Your task to perform on an android device: turn on location history Image 0: 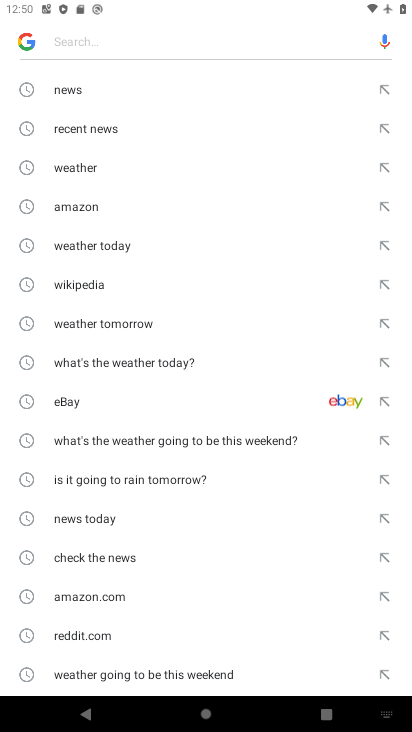
Step 0: drag from (229, 657) to (311, 292)
Your task to perform on an android device: turn on location history Image 1: 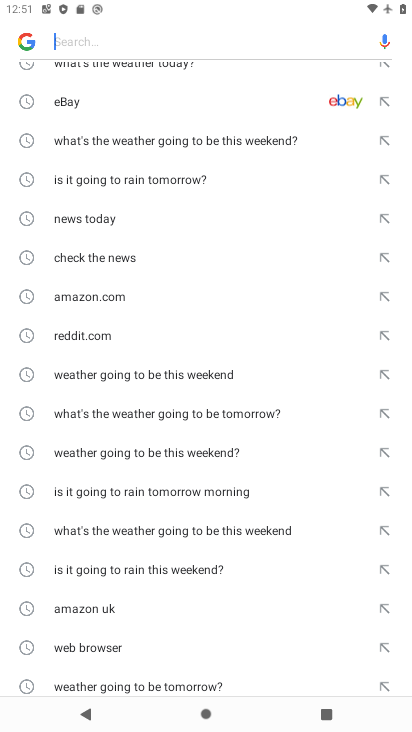
Step 1: press home button
Your task to perform on an android device: turn on location history Image 2: 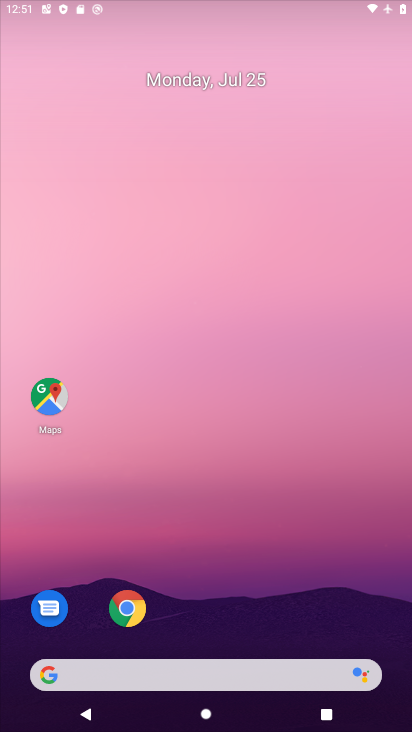
Step 2: click (261, 137)
Your task to perform on an android device: turn on location history Image 3: 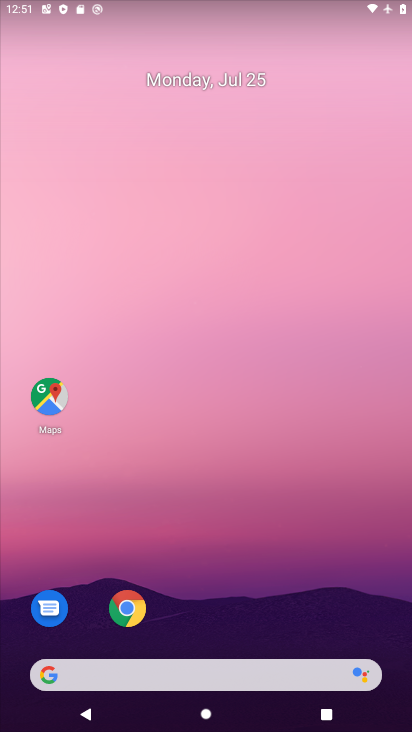
Step 3: drag from (165, 578) to (258, 109)
Your task to perform on an android device: turn on location history Image 4: 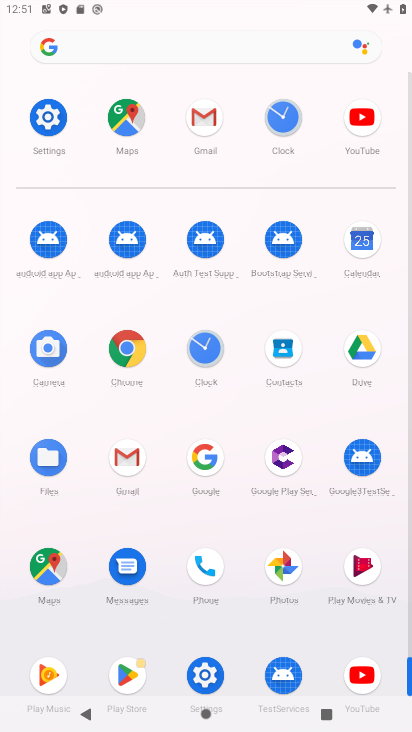
Step 4: click (54, 135)
Your task to perform on an android device: turn on location history Image 5: 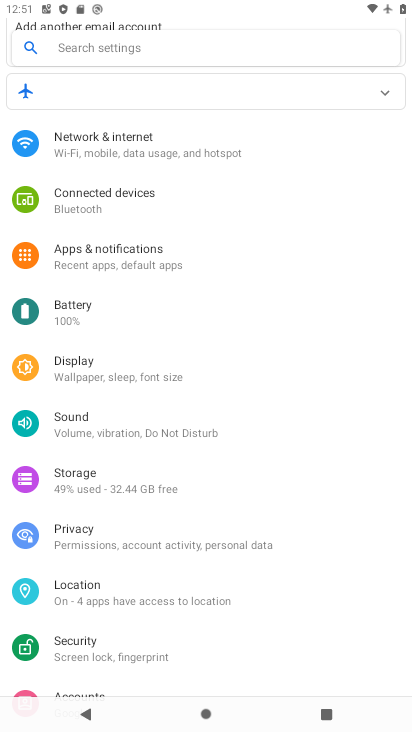
Step 5: click (99, 583)
Your task to perform on an android device: turn on location history Image 6: 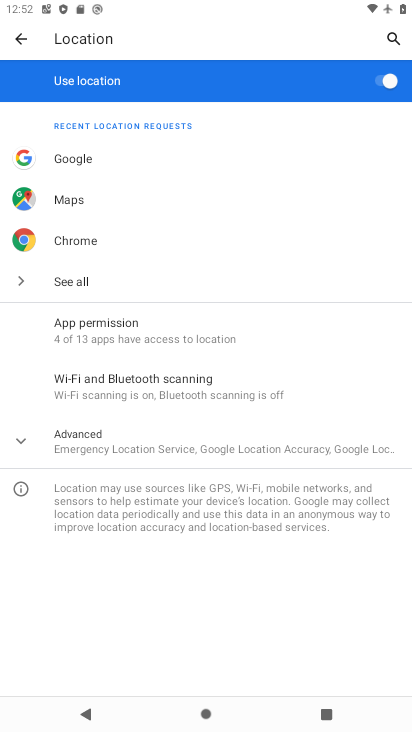
Step 6: click (139, 448)
Your task to perform on an android device: turn on location history Image 7: 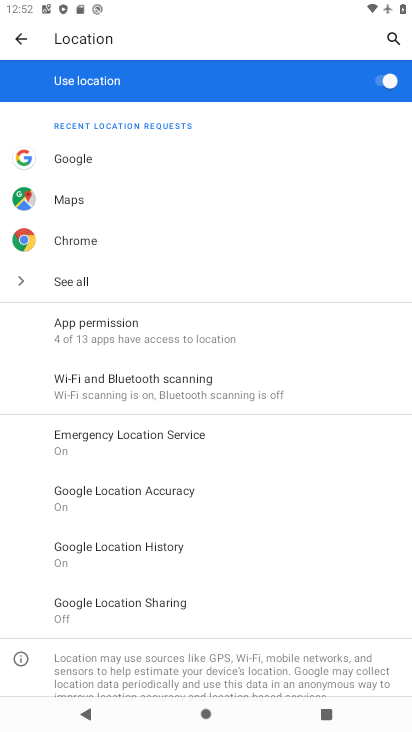
Step 7: click (119, 553)
Your task to perform on an android device: turn on location history Image 8: 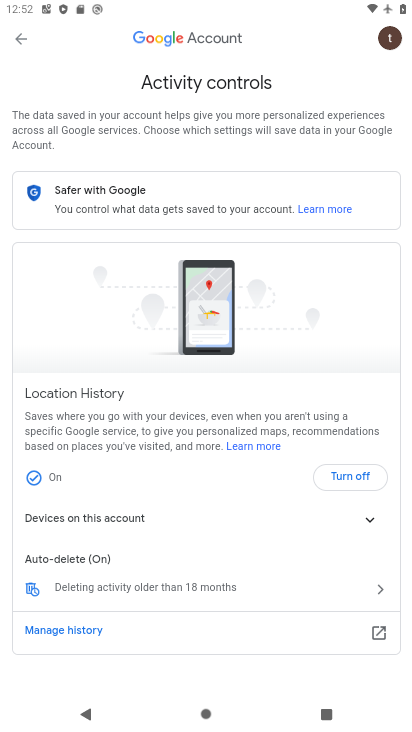
Step 8: task complete